Your task to perform on an android device: allow cookies in the chrome app Image 0: 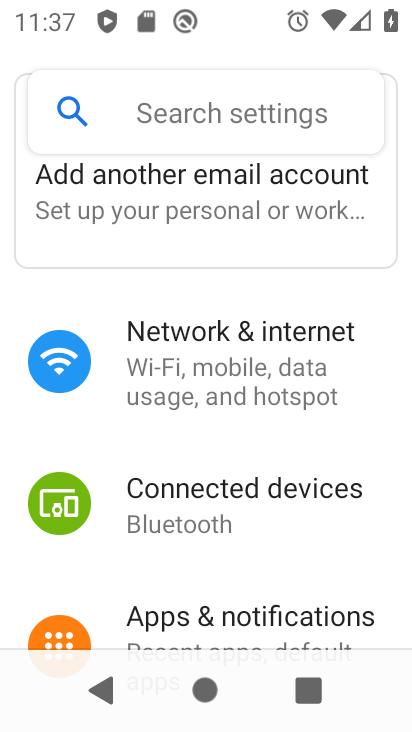
Step 0: press home button
Your task to perform on an android device: allow cookies in the chrome app Image 1: 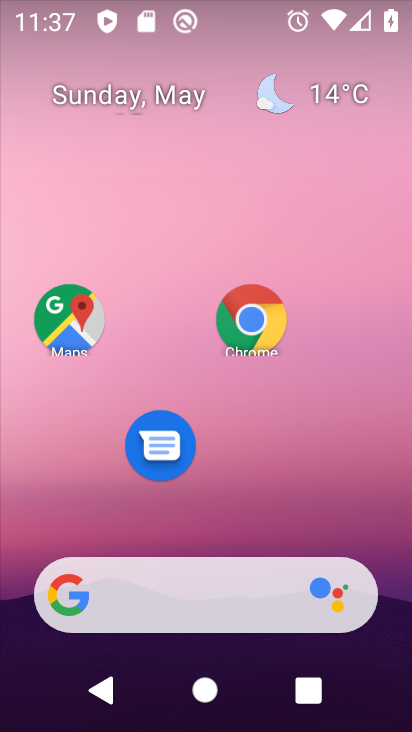
Step 1: click (256, 326)
Your task to perform on an android device: allow cookies in the chrome app Image 2: 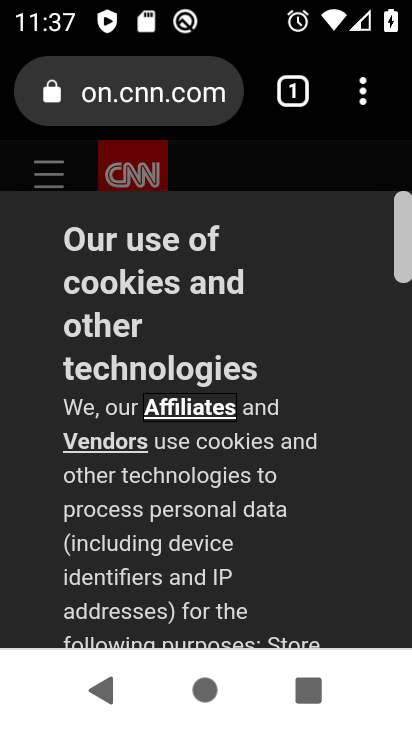
Step 2: drag from (365, 99) to (161, 472)
Your task to perform on an android device: allow cookies in the chrome app Image 3: 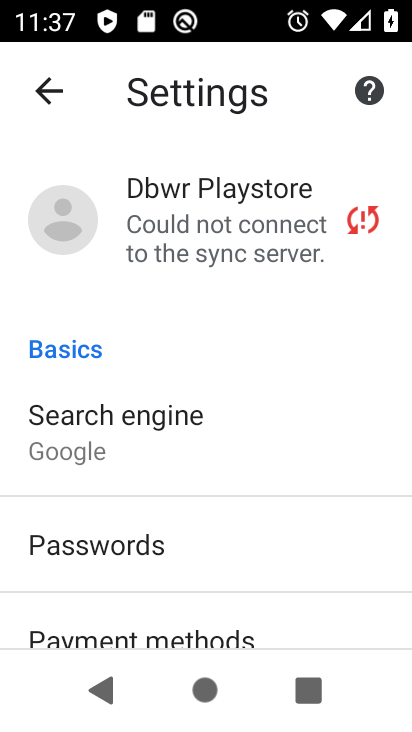
Step 3: drag from (126, 614) to (360, 123)
Your task to perform on an android device: allow cookies in the chrome app Image 4: 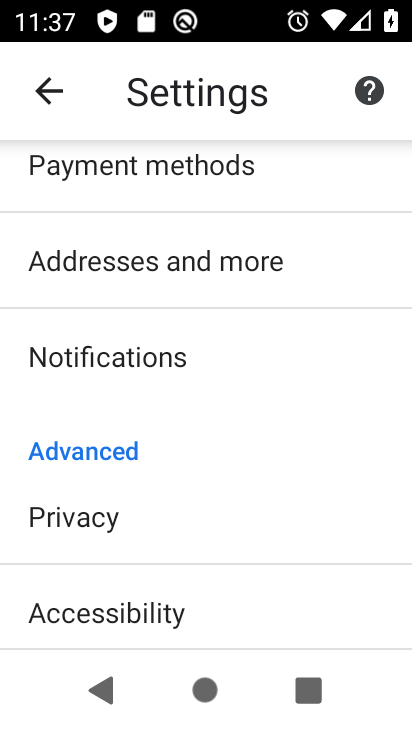
Step 4: drag from (154, 618) to (284, 225)
Your task to perform on an android device: allow cookies in the chrome app Image 5: 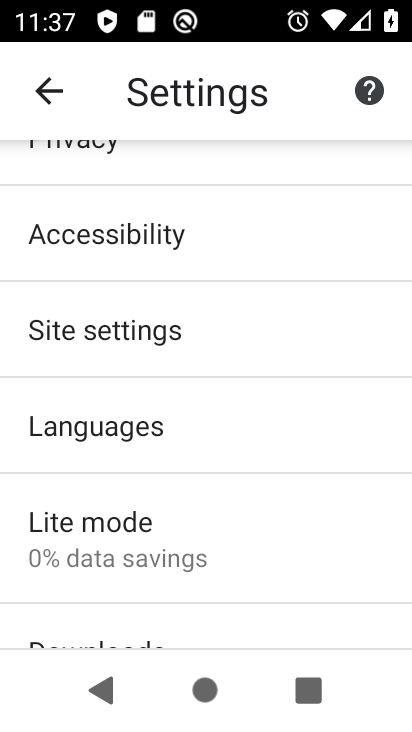
Step 5: click (149, 334)
Your task to perform on an android device: allow cookies in the chrome app Image 6: 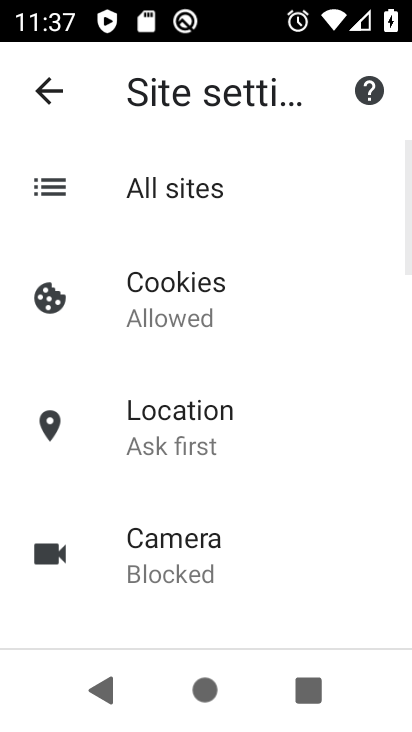
Step 6: click (186, 309)
Your task to perform on an android device: allow cookies in the chrome app Image 7: 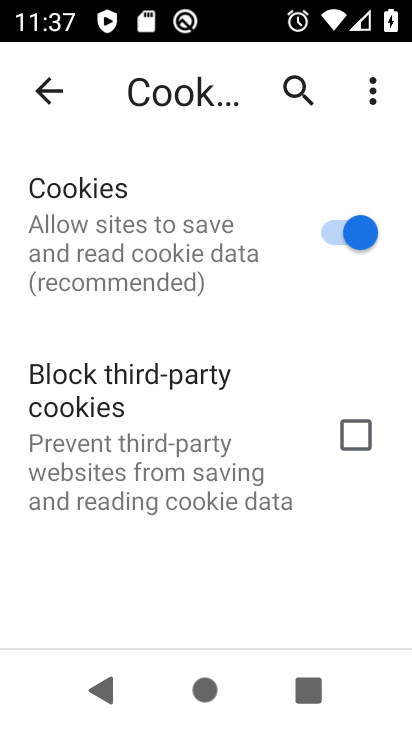
Step 7: task complete